Your task to perform on an android device: Go to ESPN.com Image 0: 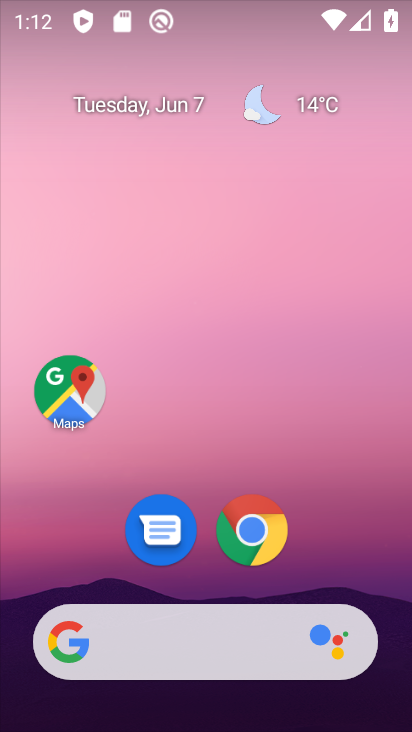
Step 0: click (255, 530)
Your task to perform on an android device: Go to ESPN.com Image 1: 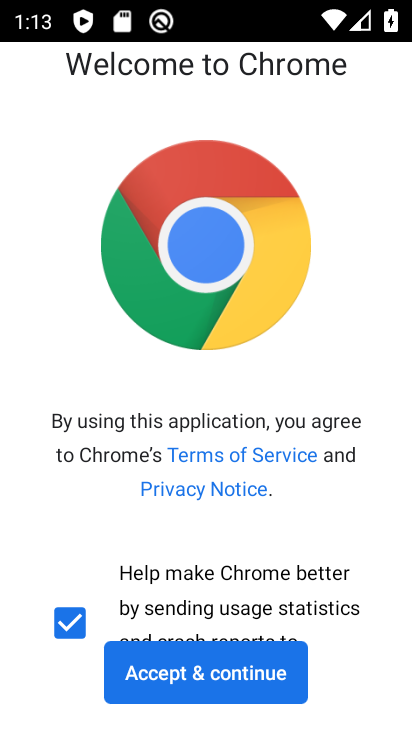
Step 1: click (230, 669)
Your task to perform on an android device: Go to ESPN.com Image 2: 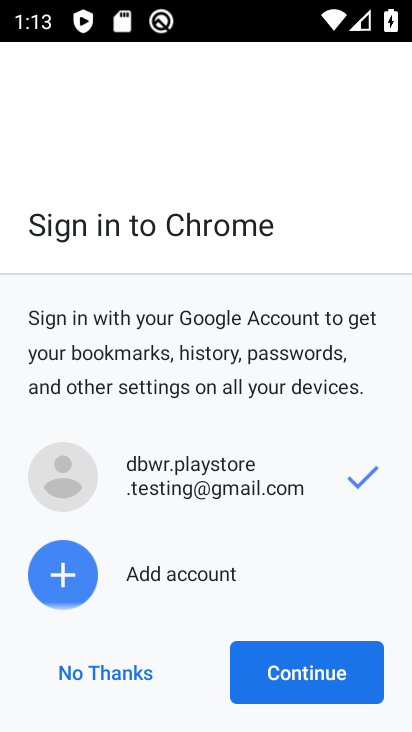
Step 2: click (265, 683)
Your task to perform on an android device: Go to ESPN.com Image 3: 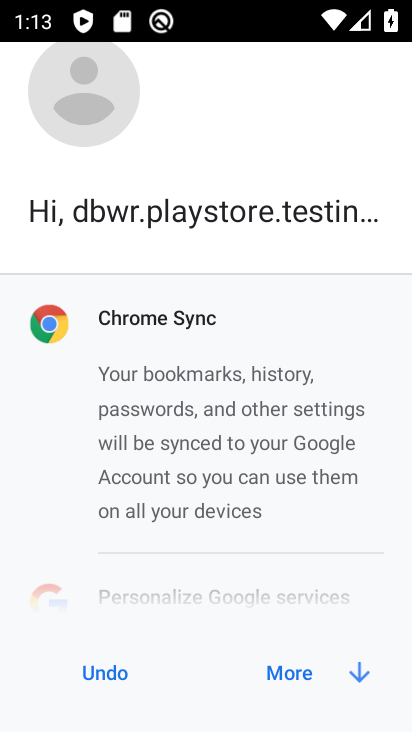
Step 3: click (357, 669)
Your task to perform on an android device: Go to ESPN.com Image 4: 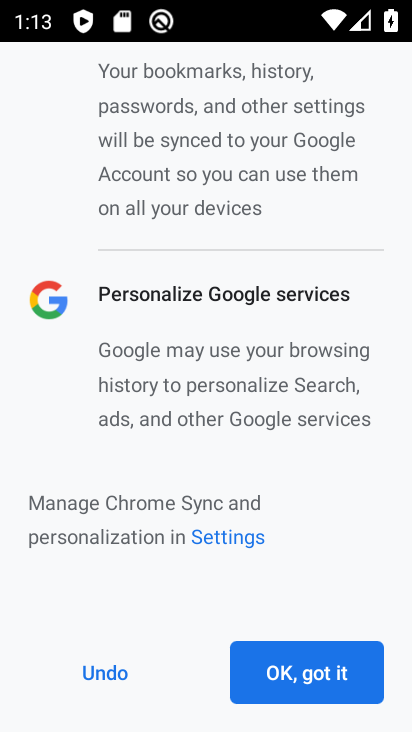
Step 4: click (357, 669)
Your task to perform on an android device: Go to ESPN.com Image 5: 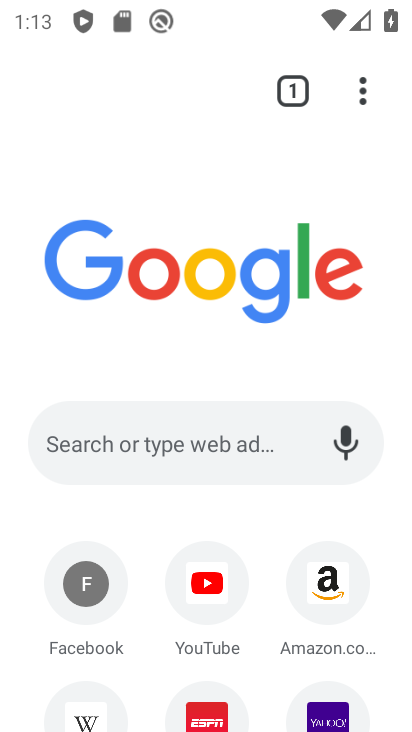
Step 5: click (347, 83)
Your task to perform on an android device: Go to ESPN.com Image 6: 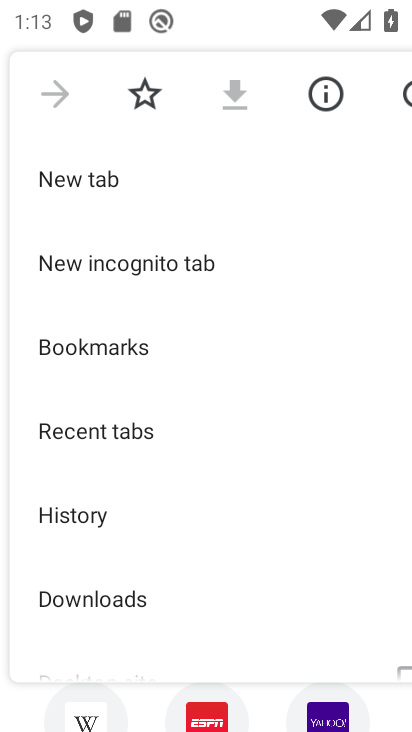
Step 6: press back button
Your task to perform on an android device: Go to ESPN.com Image 7: 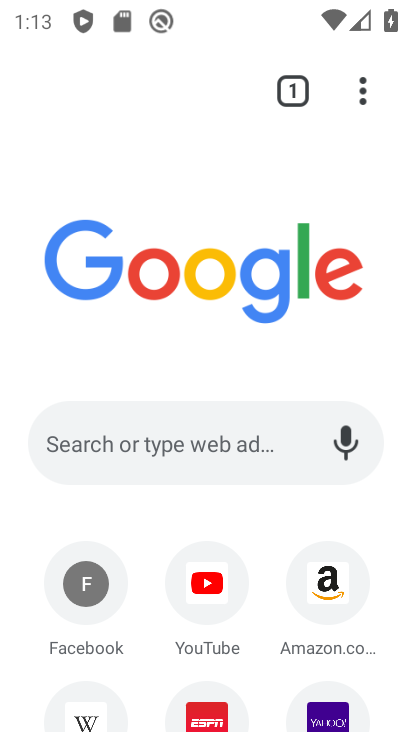
Step 7: click (210, 711)
Your task to perform on an android device: Go to ESPN.com Image 8: 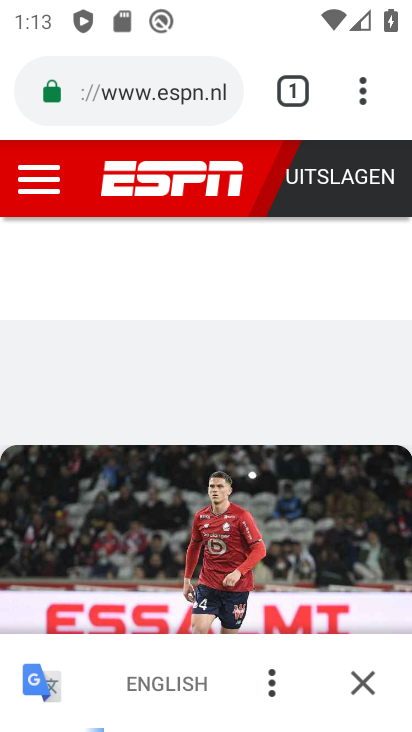
Step 8: task complete